Your task to perform on an android device: What's the weather today? Image 0: 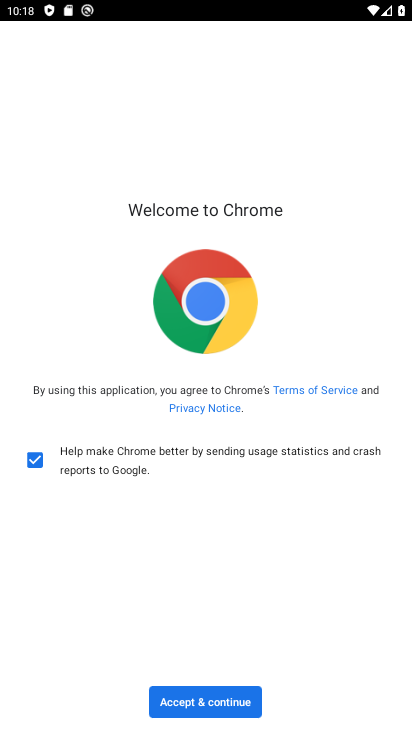
Step 0: press home button
Your task to perform on an android device: What's the weather today? Image 1: 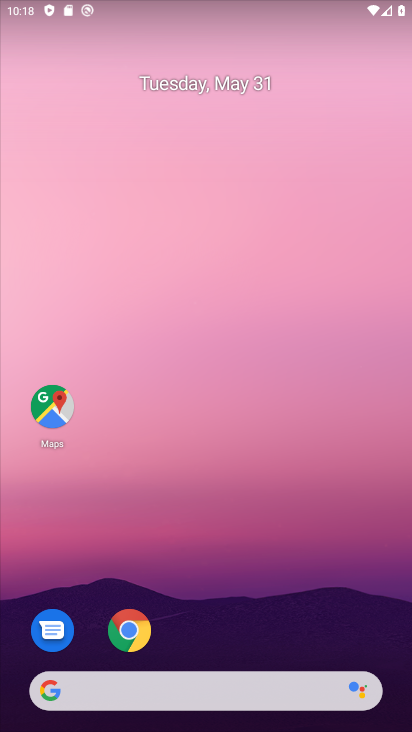
Step 1: drag from (219, 618) to (398, 610)
Your task to perform on an android device: What's the weather today? Image 2: 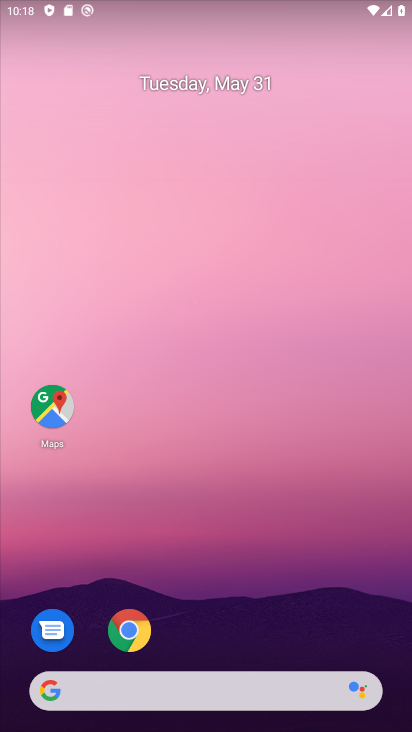
Step 2: click (186, 697)
Your task to perform on an android device: What's the weather today? Image 3: 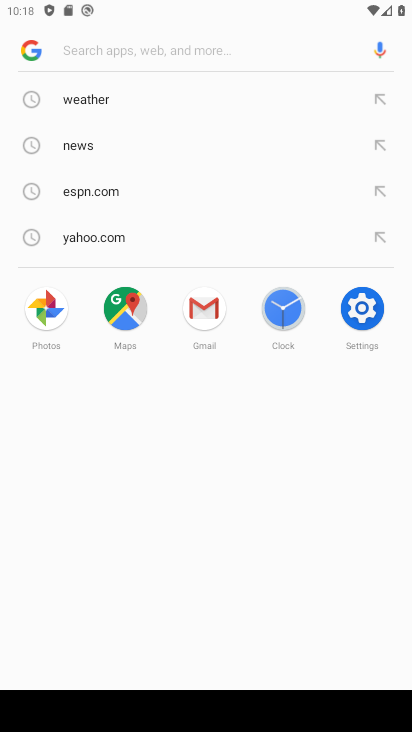
Step 3: click (89, 99)
Your task to perform on an android device: What's the weather today? Image 4: 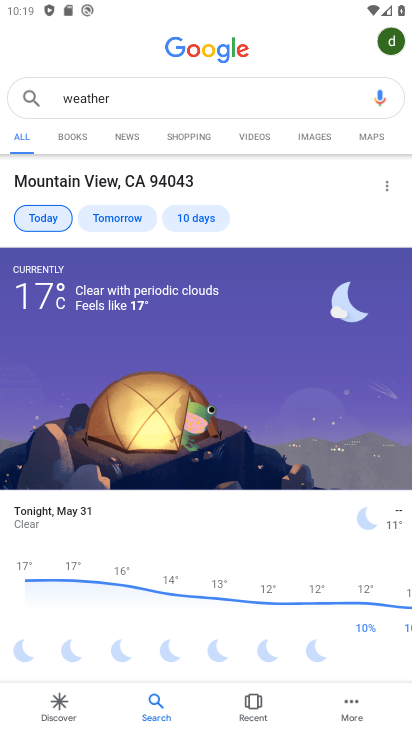
Step 4: task complete